Your task to perform on an android device: Turn off the flashlight Image 0: 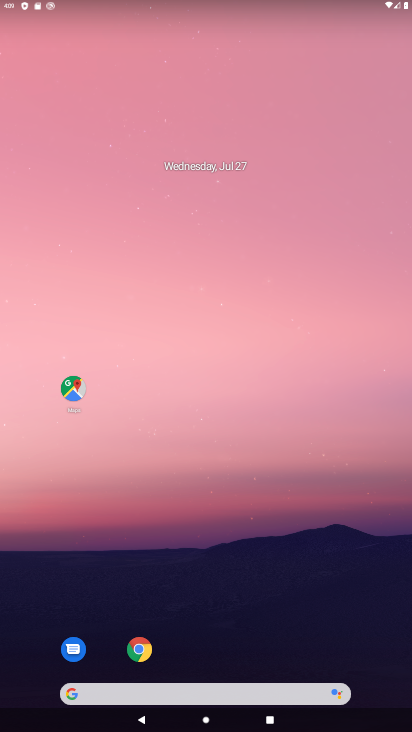
Step 0: drag from (214, 549) to (217, 129)
Your task to perform on an android device: Turn off the flashlight Image 1: 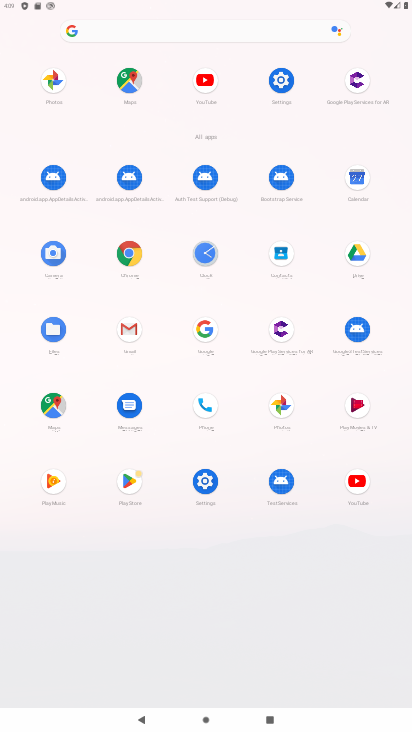
Step 1: click (284, 87)
Your task to perform on an android device: Turn off the flashlight Image 2: 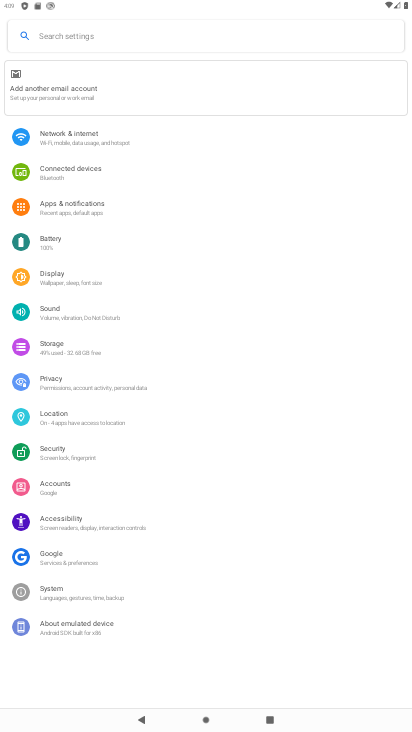
Step 2: task complete